Your task to perform on an android device: Find coffee shops on Maps Image 0: 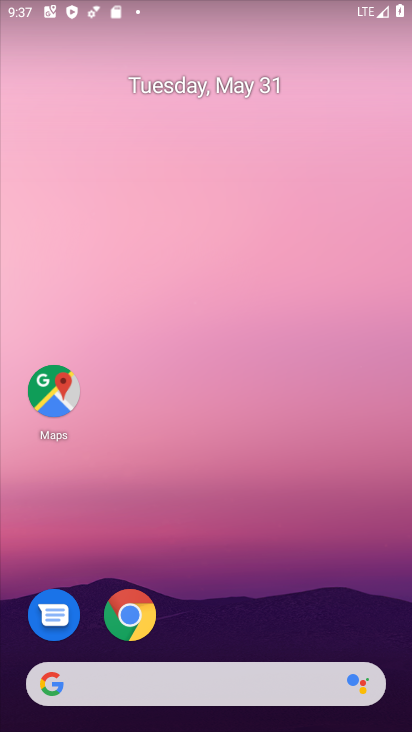
Step 0: drag from (277, 562) to (312, 62)
Your task to perform on an android device: Find coffee shops on Maps Image 1: 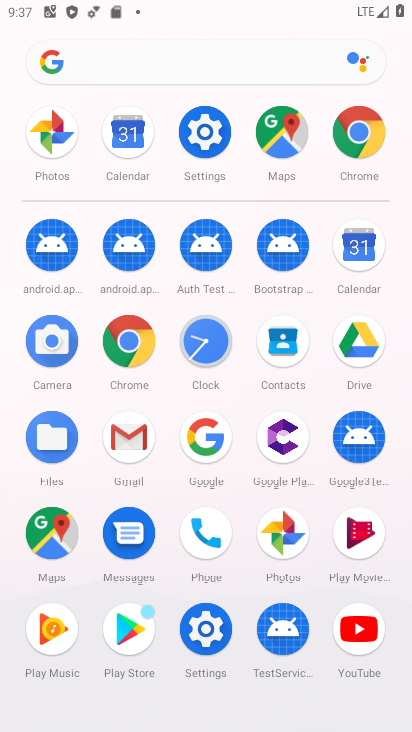
Step 1: click (287, 135)
Your task to perform on an android device: Find coffee shops on Maps Image 2: 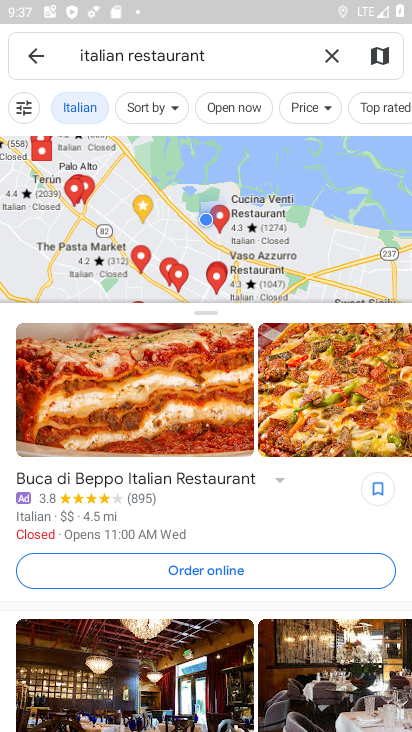
Step 2: click (341, 50)
Your task to perform on an android device: Find coffee shops on Maps Image 3: 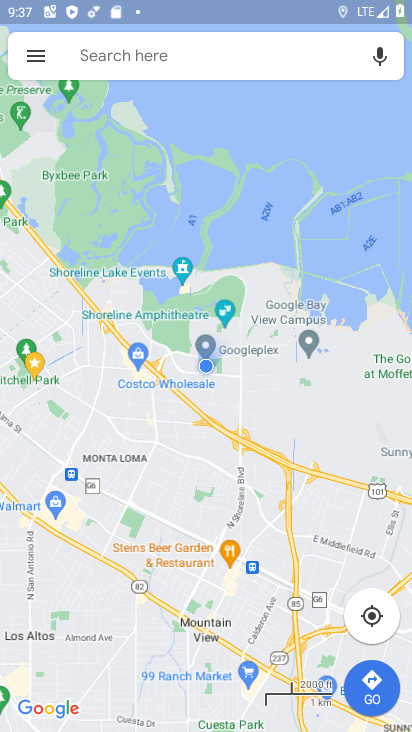
Step 3: click (155, 60)
Your task to perform on an android device: Find coffee shops on Maps Image 4: 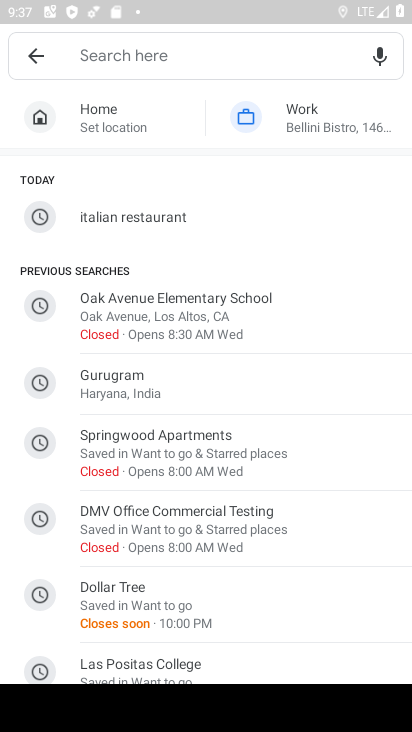
Step 4: type "coffee"
Your task to perform on an android device: Find coffee shops on Maps Image 5: 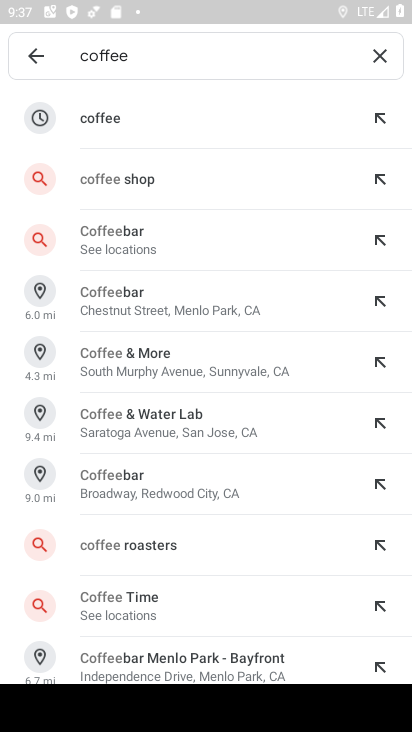
Step 5: click (175, 166)
Your task to perform on an android device: Find coffee shops on Maps Image 6: 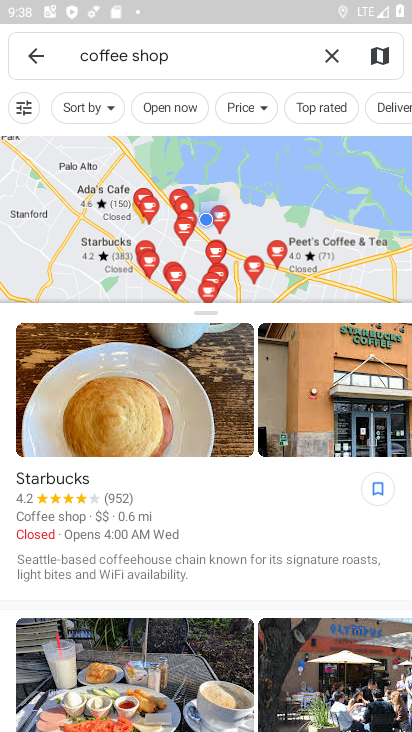
Step 6: task complete